Your task to perform on an android device: open chrome privacy settings Image 0: 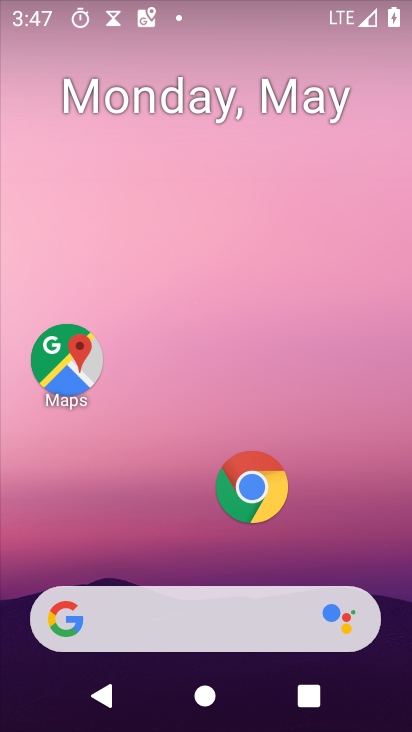
Step 0: click (258, 487)
Your task to perform on an android device: open chrome privacy settings Image 1: 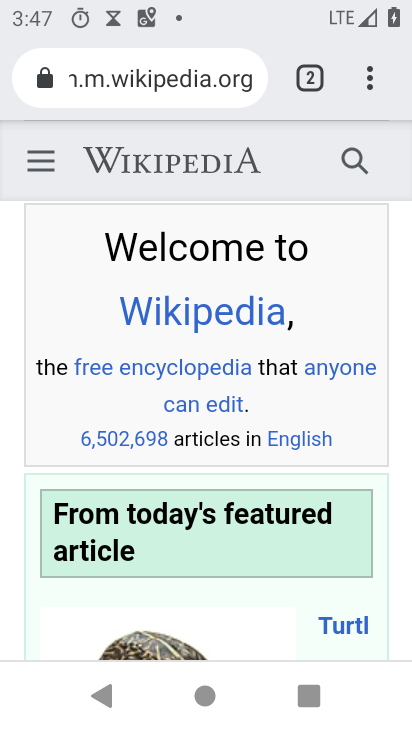
Step 1: click (365, 80)
Your task to perform on an android device: open chrome privacy settings Image 2: 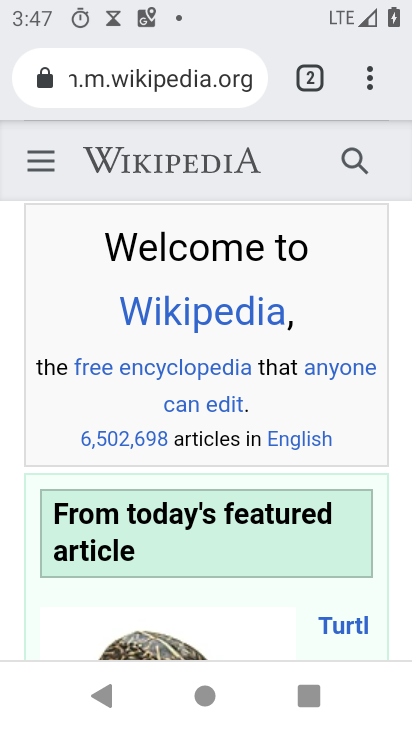
Step 2: click (365, 80)
Your task to perform on an android device: open chrome privacy settings Image 3: 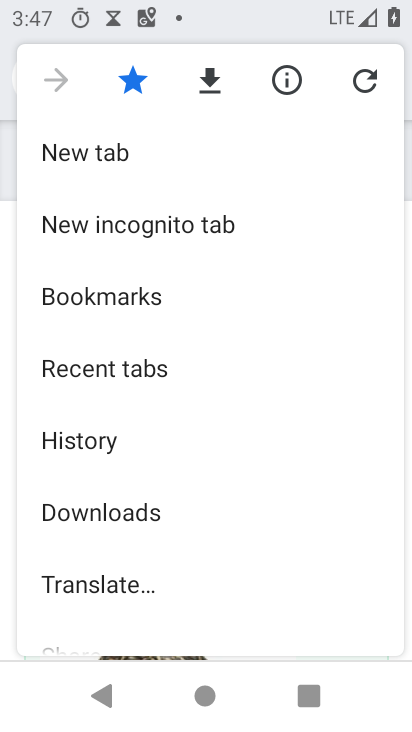
Step 3: drag from (191, 572) to (210, 282)
Your task to perform on an android device: open chrome privacy settings Image 4: 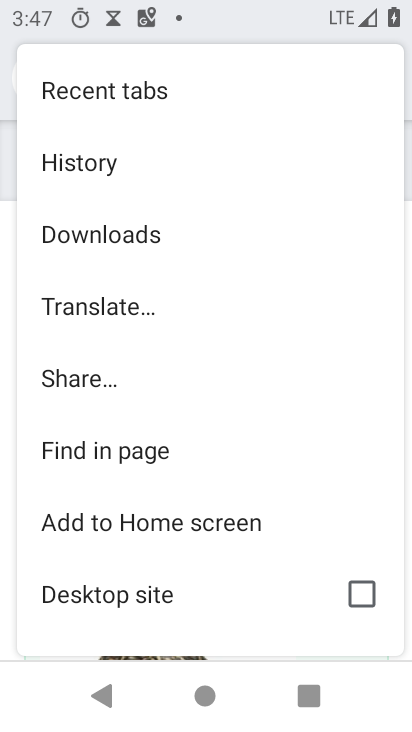
Step 4: drag from (164, 585) to (191, 325)
Your task to perform on an android device: open chrome privacy settings Image 5: 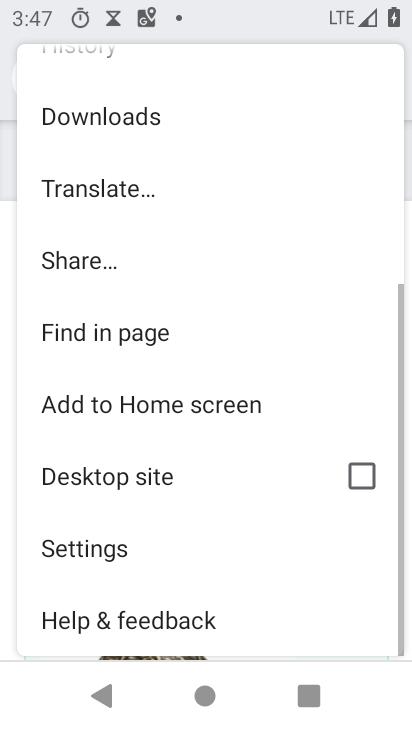
Step 5: click (113, 558)
Your task to perform on an android device: open chrome privacy settings Image 6: 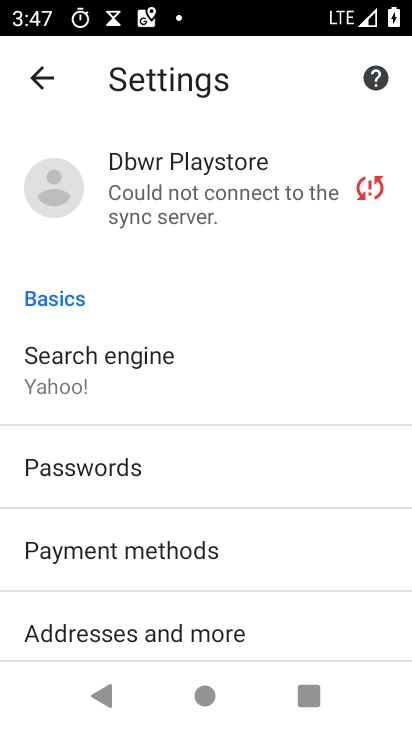
Step 6: drag from (178, 614) to (206, 280)
Your task to perform on an android device: open chrome privacy settings Image 7: 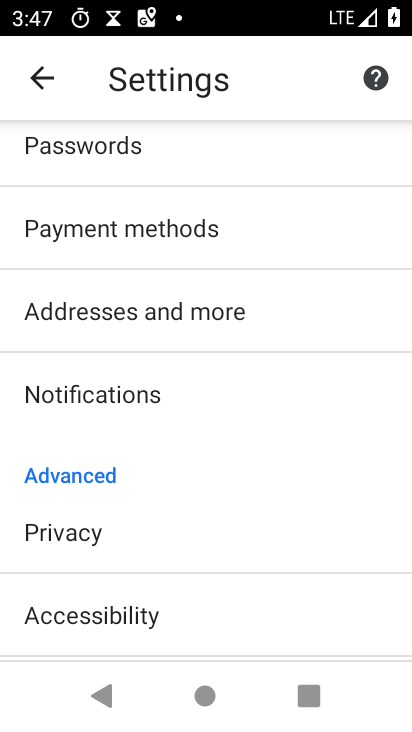
Step 7: click (82, 540)
Your task to perform on an android device: open chrome privacy settings Image 8: 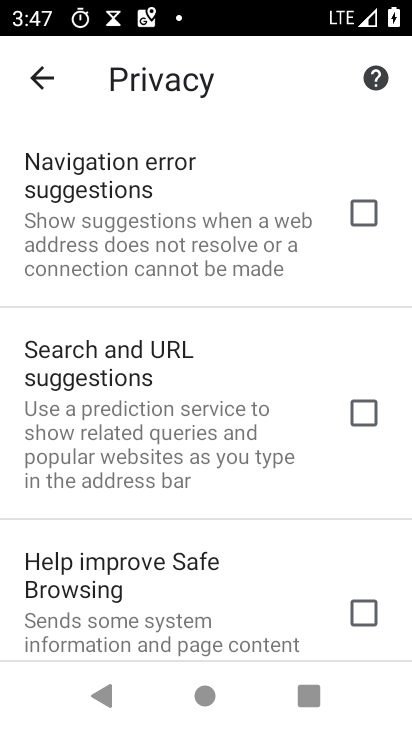
Step 8: task complete